Your task to perform on an android device: find snoozed emails in the gmail app Image 0: 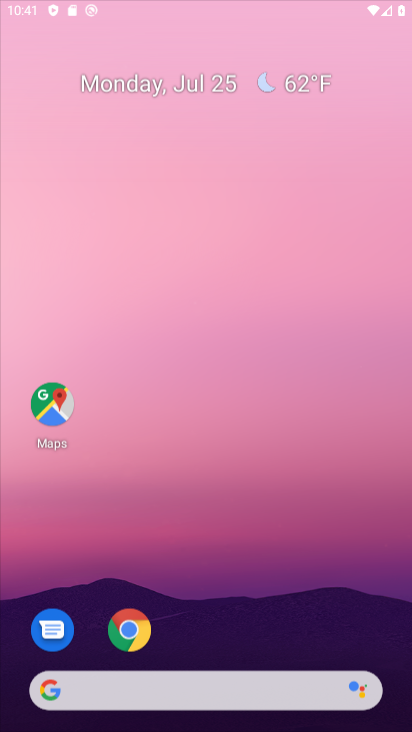
Step 0: drag from (294, 11) to (236, 3)
Your task to perform on an android device: find snoozed emails in the gmail app Image 1: 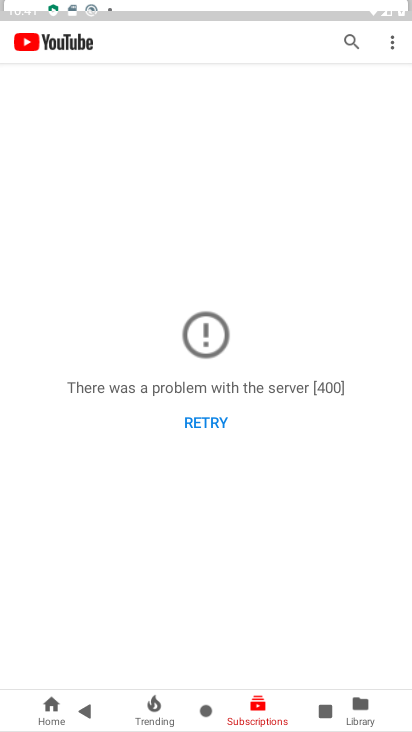
Step 1: drag from (311, 496) to (353, 266)
Your task to perform on an android device: find snoozed emails in the gmail app Image 2: 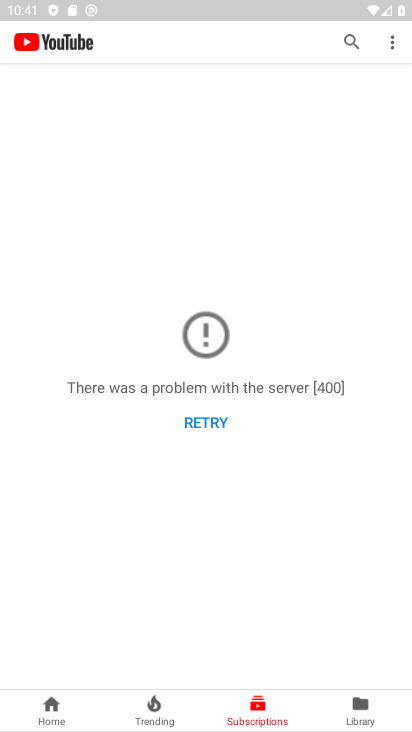
Step 2: press home button
Your task to perform on an android device: find snoozed emails in the gmail app Image 3: 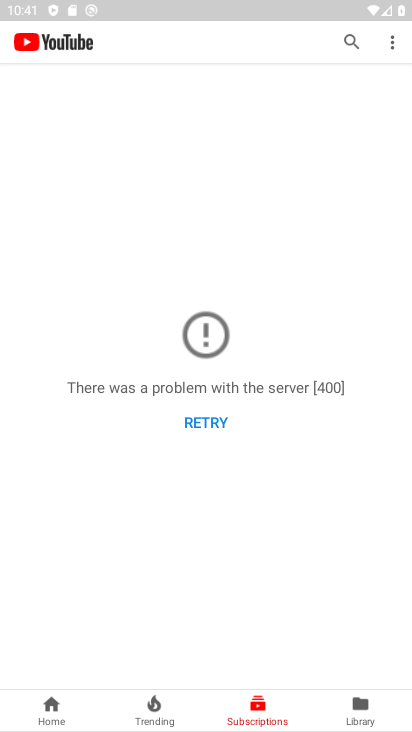
Step 3: press home button
Your task to perform on an android device: find snoozed emails in the gmail app Image 4: 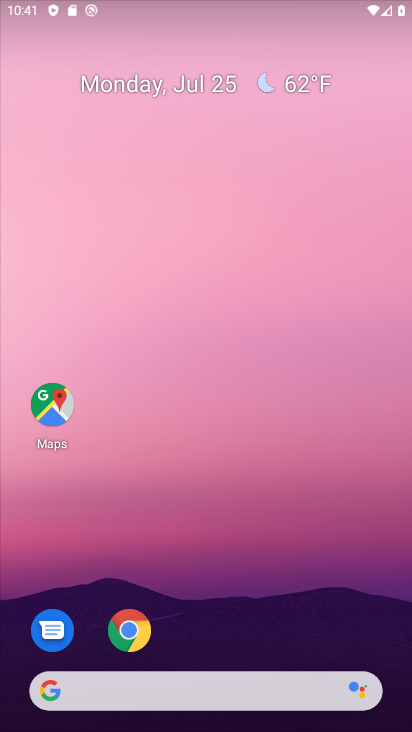
Step 4: drag from (196, 611) to (221, 66)
Your task to perform on an android device: find snoozed emails in the gmail app Image 5: 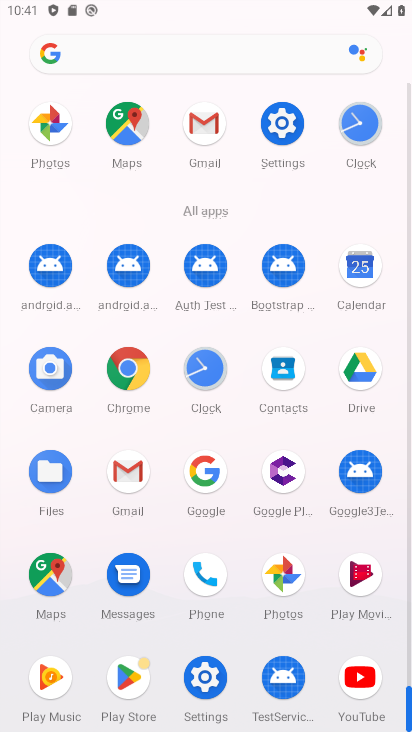
Step 5: click (129, 478)
Your task to perform on an android device: find snoozed emails in the gmail app Image 6: 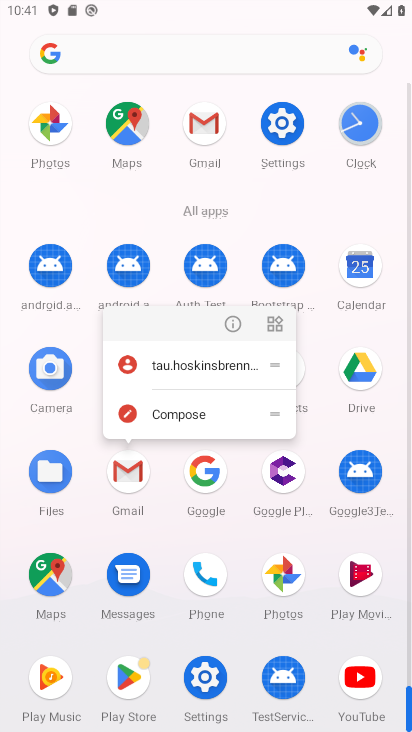
Step 6: click (222, 317)
Your task to perform on an android device: find snoozed emails in the gmail app Image 7: 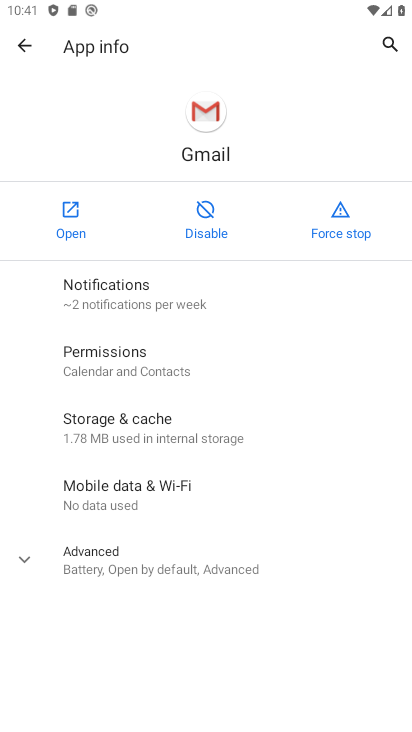
Step 7: click (82, 210)
Your task to perform on an android device: find snoozed emails in the gmail app Image 8: 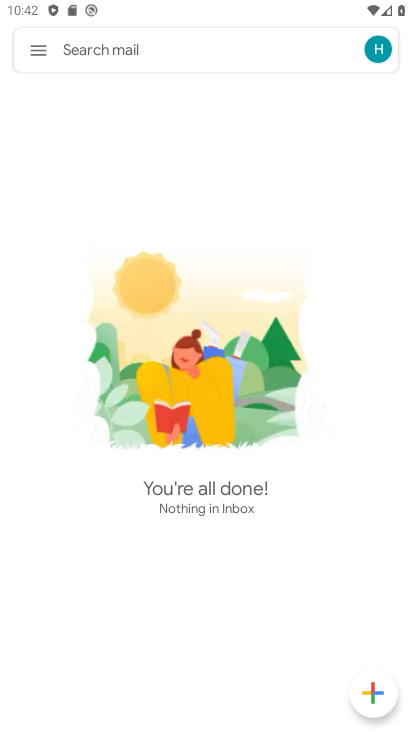
Step 8: click (48, 52)
Your task to perform on an android device: find snoozed emails in the gmail app Image 9: 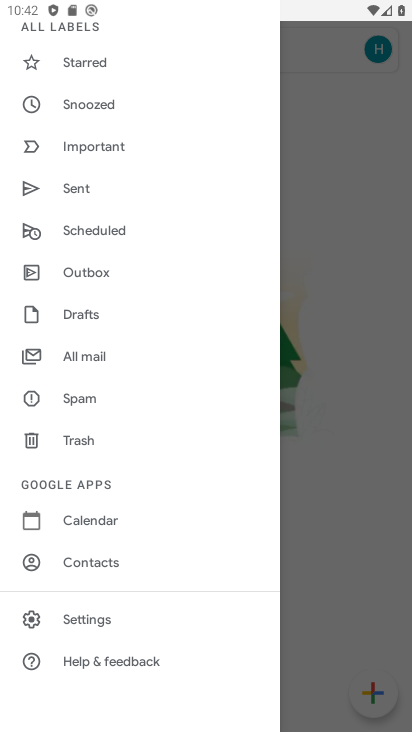
Step 9: click (93, 100)
Your task to perform on an android device: find snoozed emails in the gmail app Image 10: 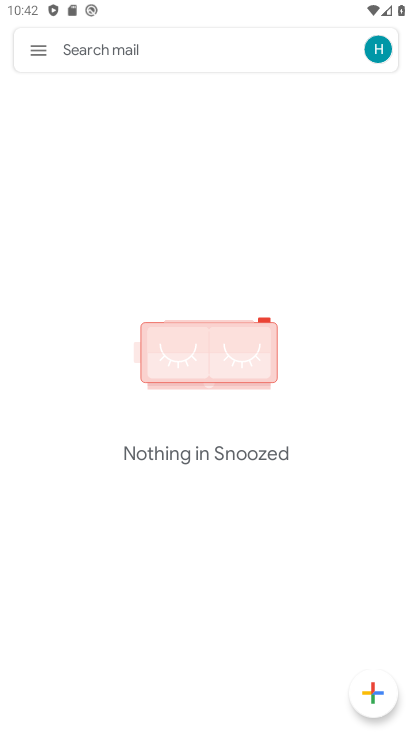
Step 10: task complete